Your task to perform on an android device: open app "YouTube Kids" (install if not already installed) Image 0: 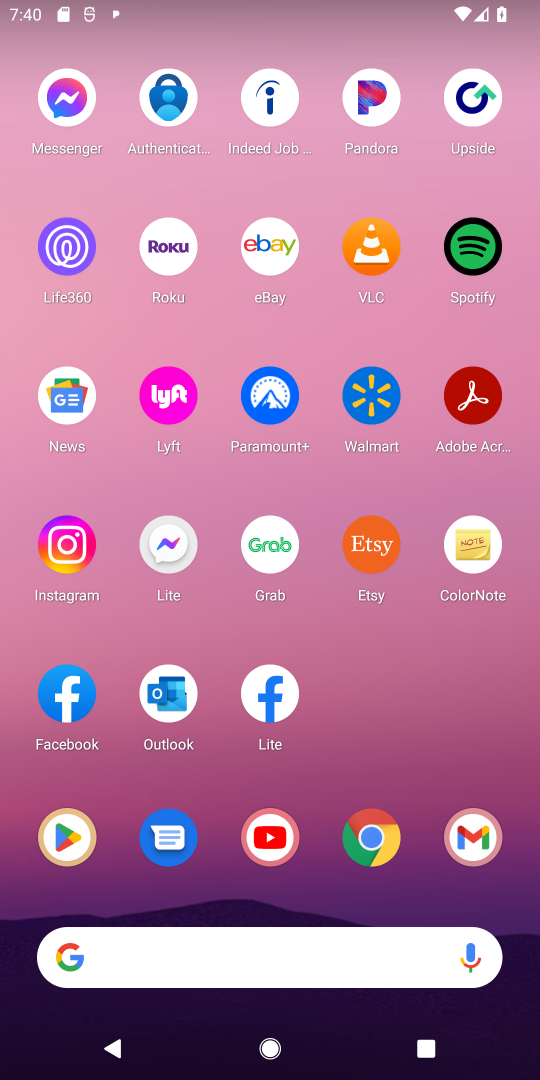
Step 0: click (66, 850)
Your task to perform on an android device: open app "YouTube Kids" (install if not already installed) Image 1: 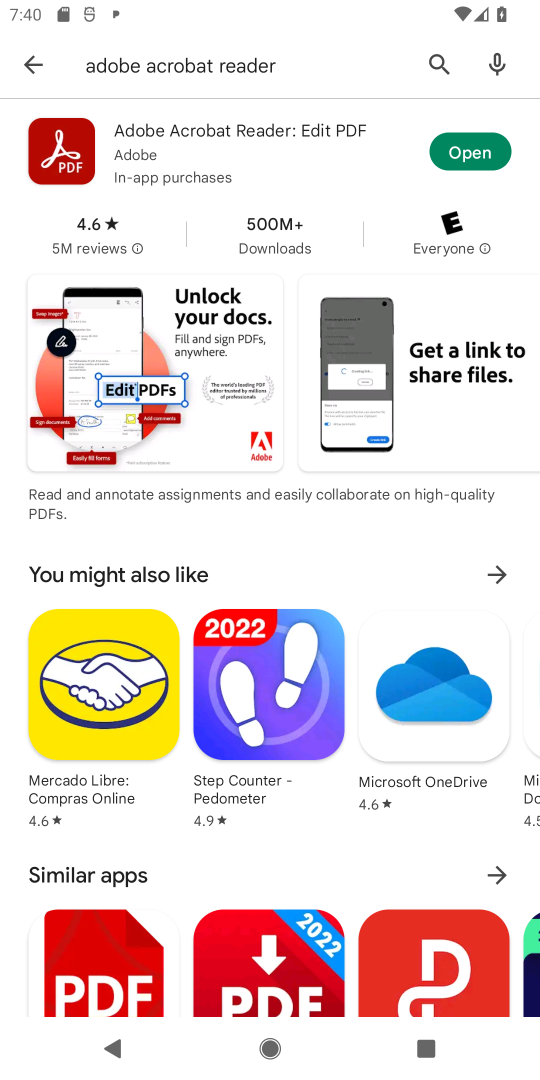
Step 1: click (444, 67)
Your task to perform on an android device: open app "YouTube Kids" (install if not already installed) Image 2: 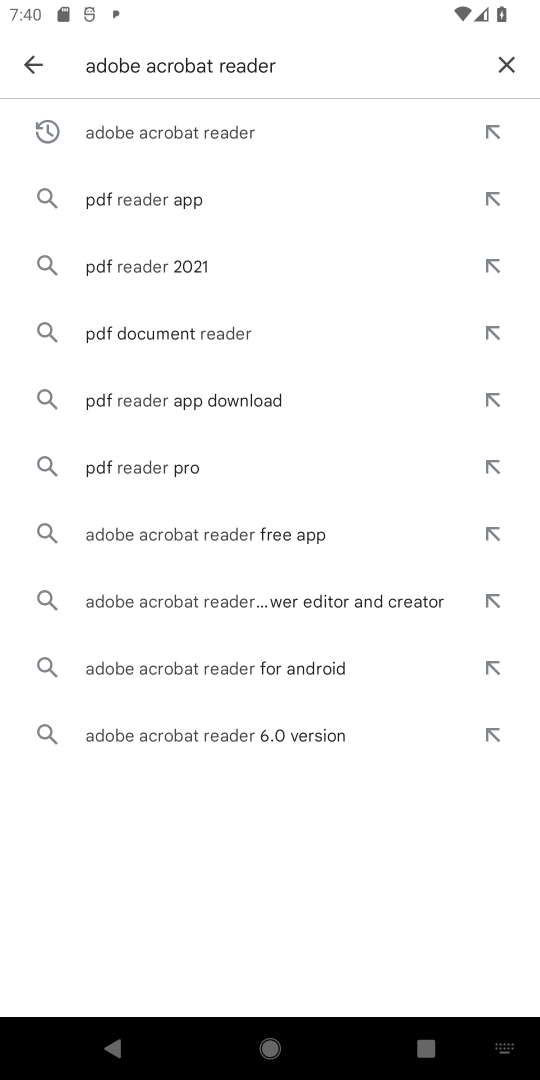
Step 2: click (514, 66)
Your task to perform on an android device: open app "YouTube Kids" (install if not already installed) Image 3: 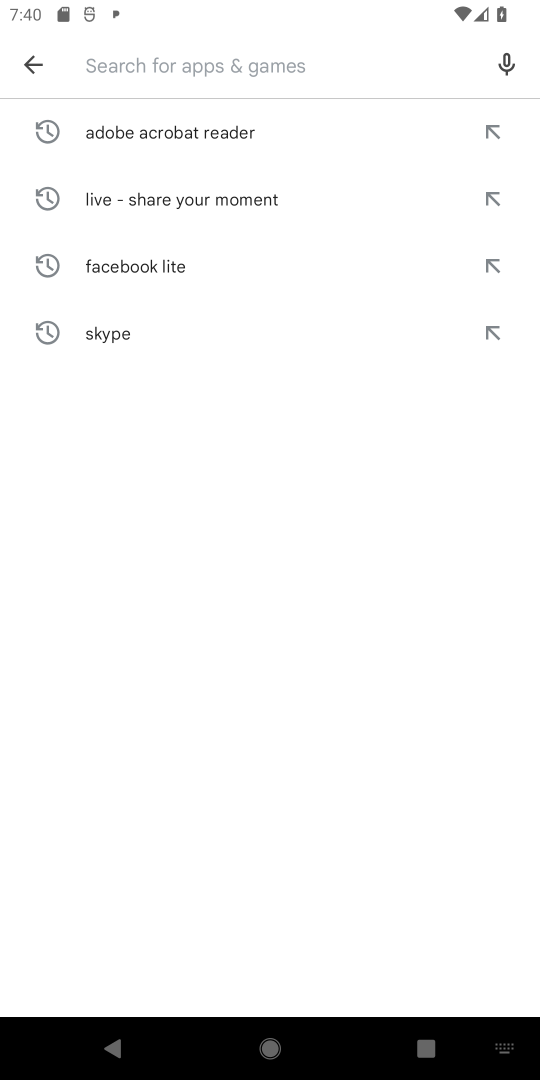
Step 3: type "YouTube Kids"
Your task to perform on an android device: open app "YouTube Kids" (install if not already installed) Image 4: 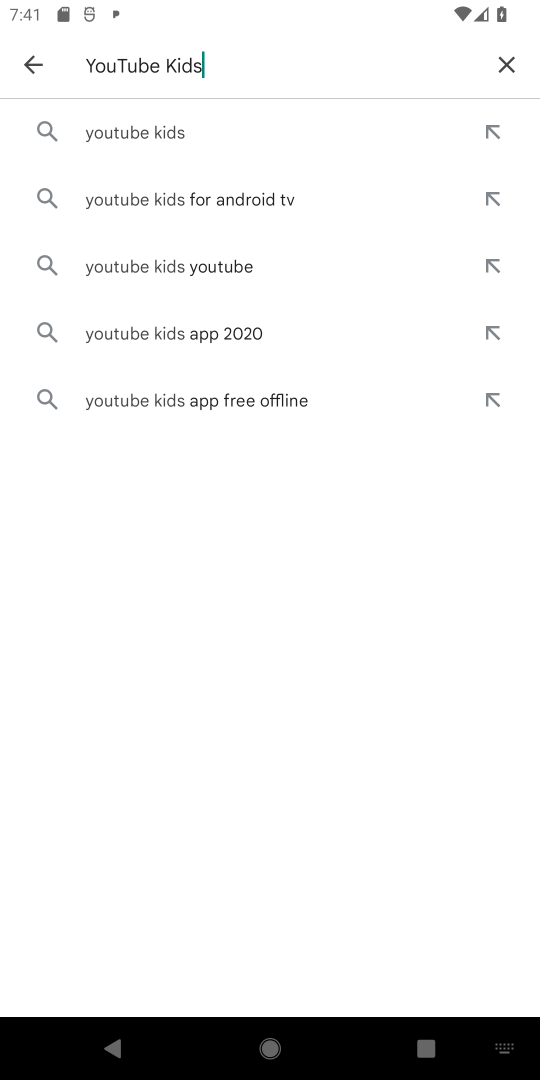
Step 4: click (168, 132)
Your task to perform on an android device: open app "YouTube Kids" (install if not already installed) Image 5: 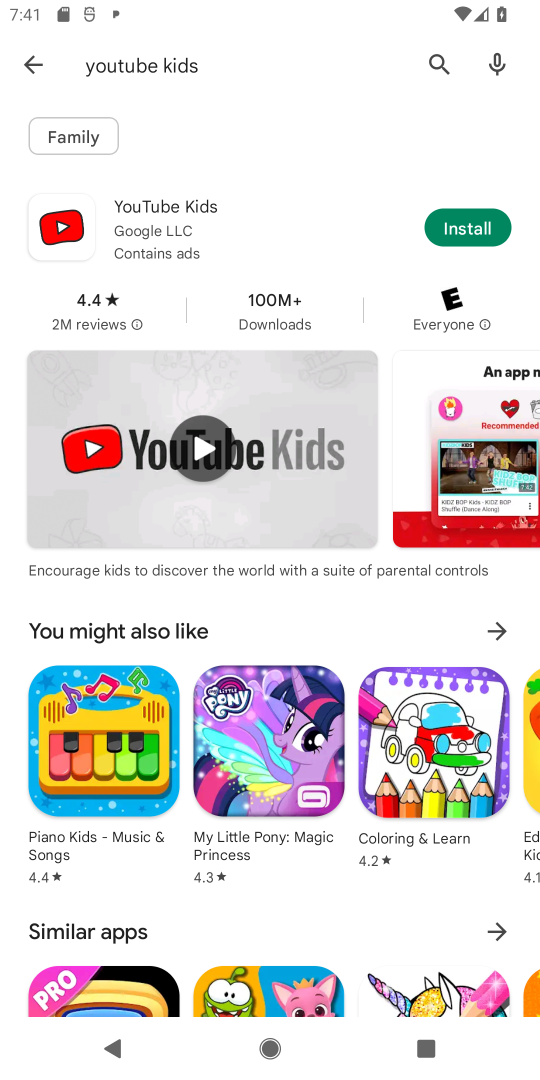
Step 5: click (460, 238)
Your task to perform on an android device: open app "YouTube Kids" (install if not already installed) Image 6: 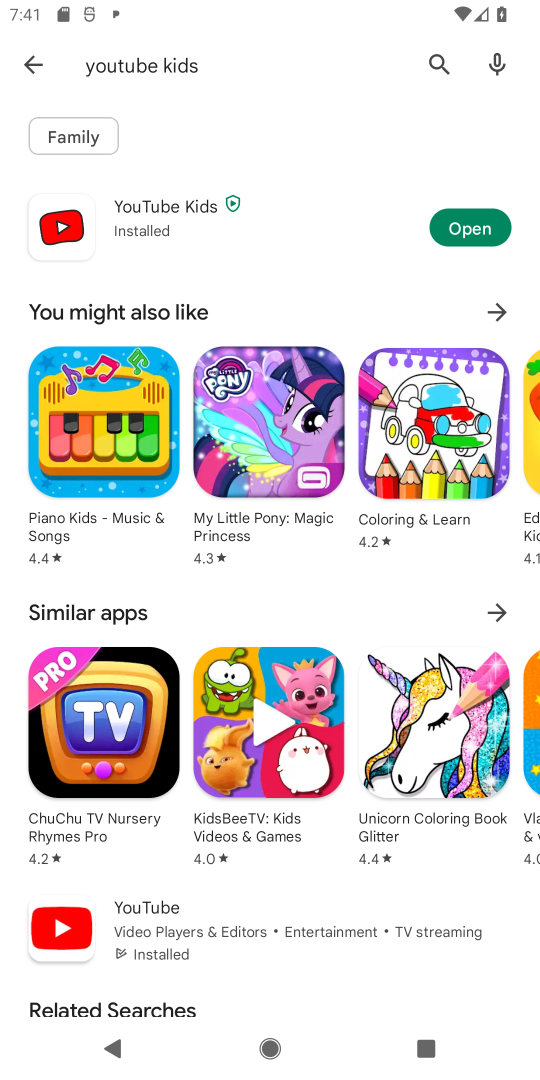
Step 6: click (458, 238)
Your task to perform on an android device: open app "YouTube Kids" (install if not already installed) Image 7: 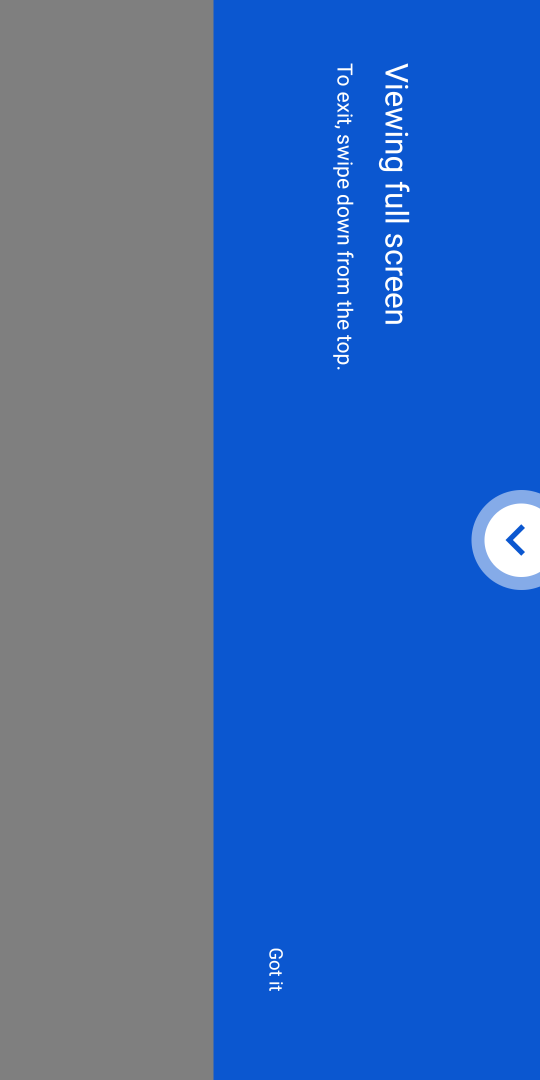
Step 7: task complete